Your task to perform on an android device: What's on my calendar tomorrow? Image 0: 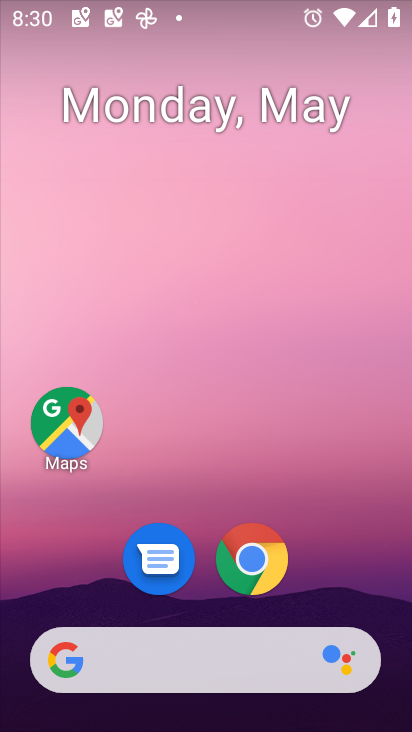
Step 0: drag from (389, 657) to (299, 96)
Your task to perform on an android device: What's on my calendar tomorrow? Image 1: 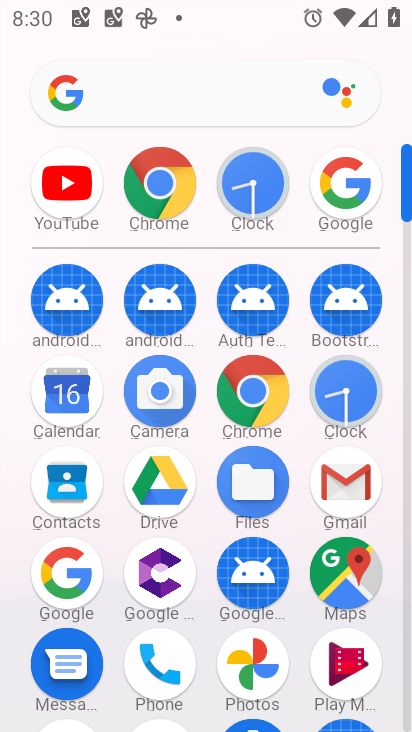
Step 1: click (66, 383)
Your task to perform on an android device: What's on my calendar tomorrow? Image 2: 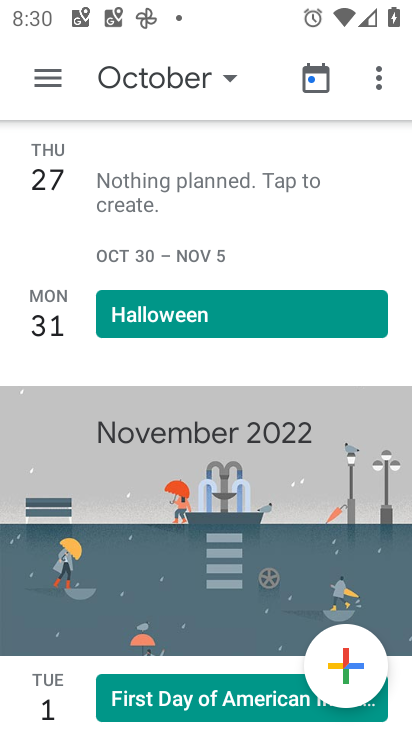
Step 2: press back button
Your task to perform on an android device: What's on my calendar tomorrow? Image 3: 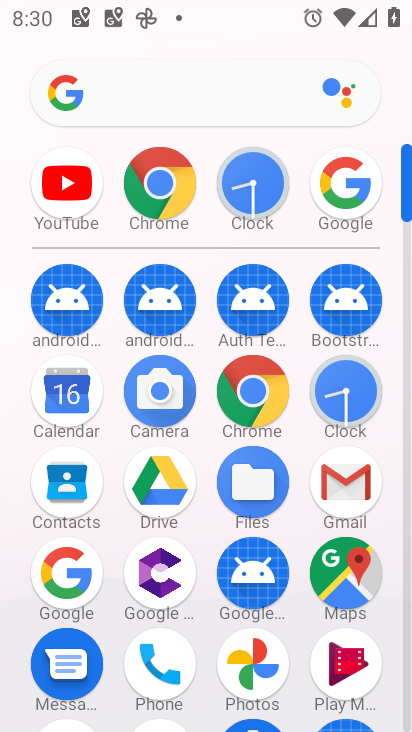
Step 3: click (64, 380)
Your task to perform on an android device: What's on my calendar tomorrow? Image 4: 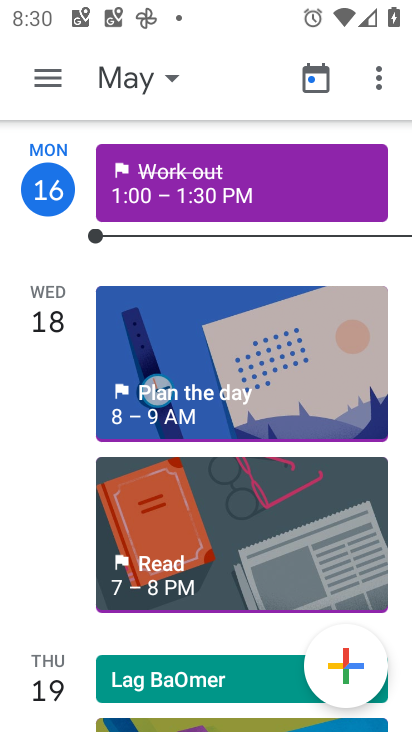
Step 4: click (112, 82)
Your task to perform on an android device: What's on my calendar tomorrow? Image 5: 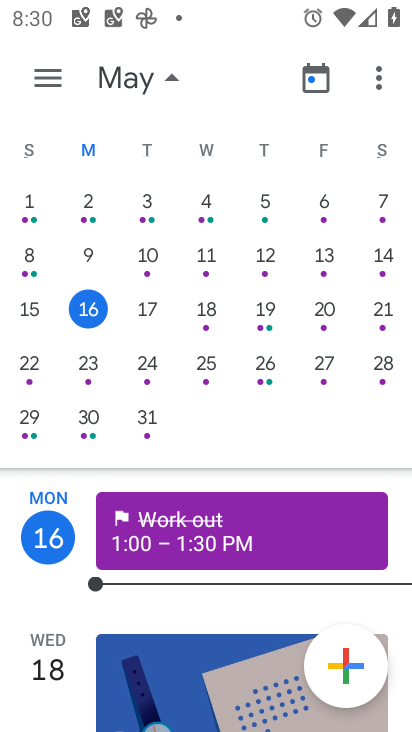
Step 5: click (211, 315)
Your task to perform on an android device: What's on my calendar tomorrow? Image 6: 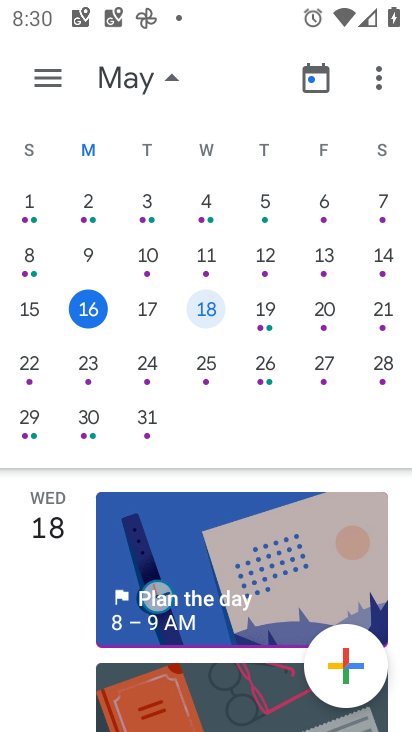
Step 6: task complete